Your task to perform on an android device: Show me popular videos on Youtube Image 0: 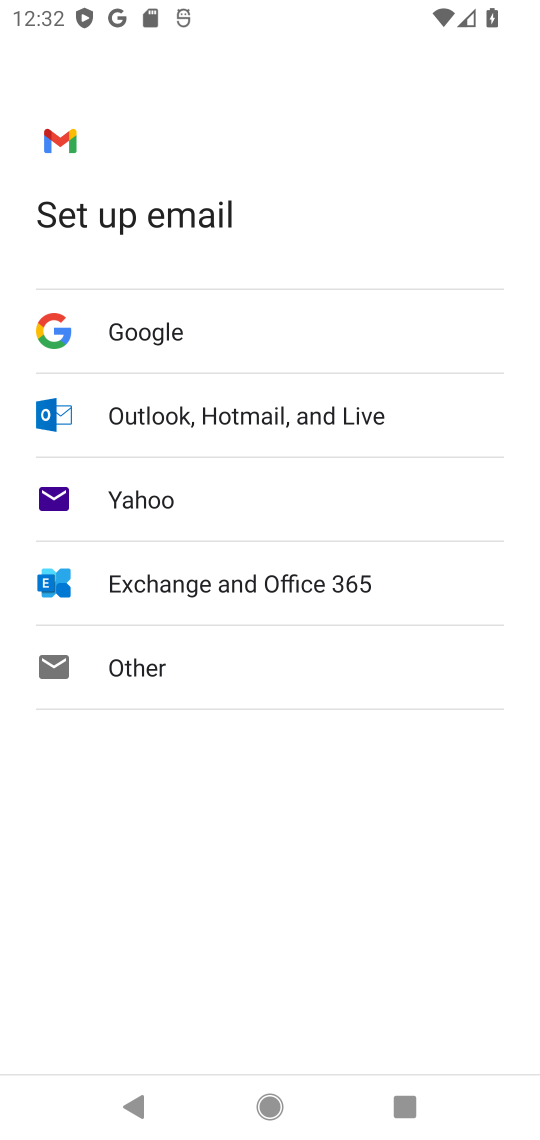
Step 0: press home button
Your task to perform on an android device: Show me popular videos on Youtube Image 1: 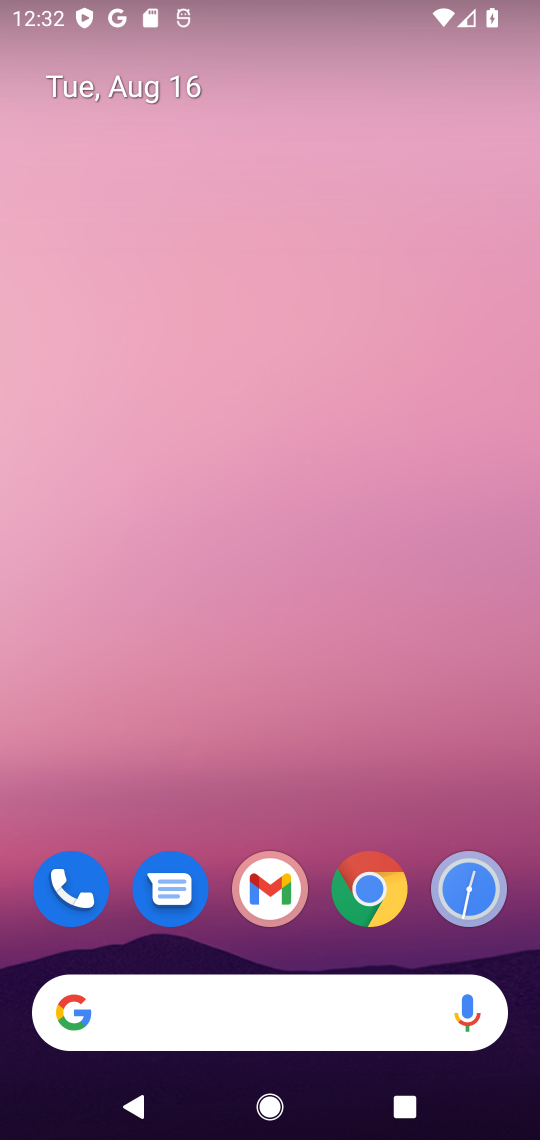
Step 1: drag from (383, 630) to (470, 2)
Your task to perform on an android device: Show me popular videos on Youtube Image 2: 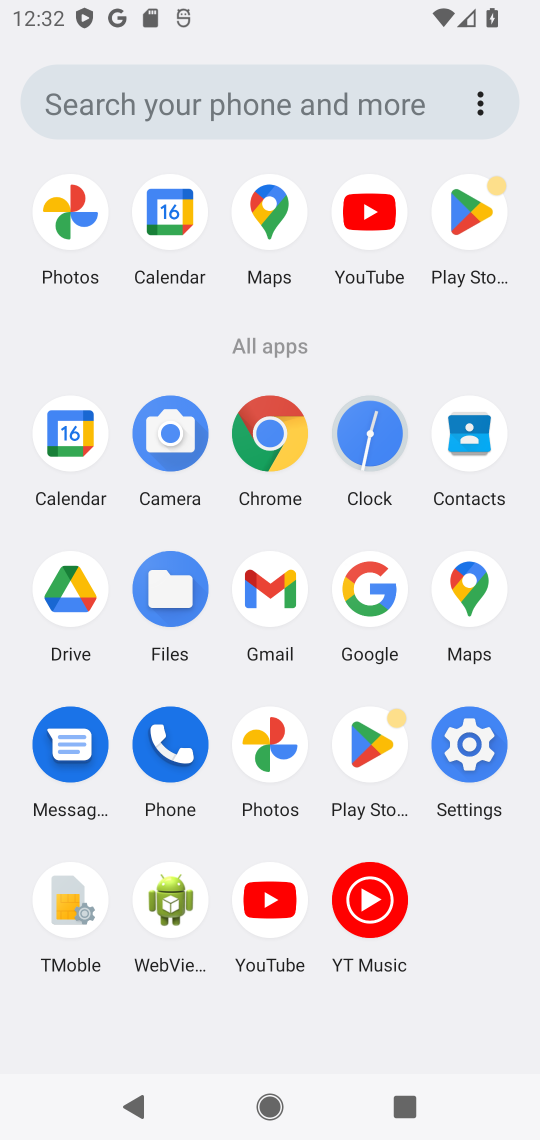
Step 2: click (361, 218)
Your task to perform on an android device: Show me popular videos on Youtube Image 3: 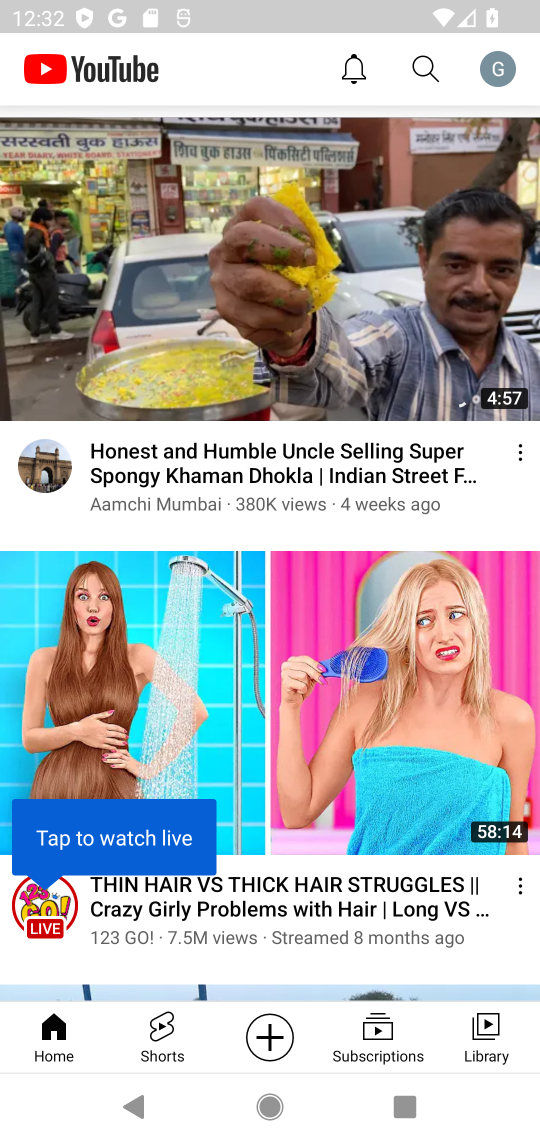
Step 3: click (424, 66)
Your task to perform on an android device: Show me popular videos on Youtube Image 4: 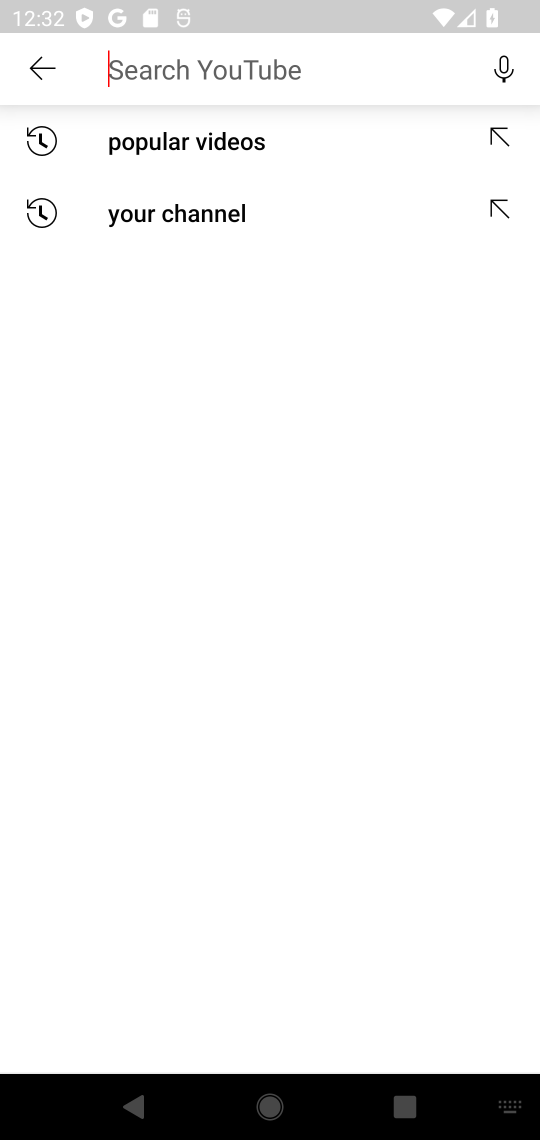
Step 4: click (187, 144)
Your task to perform on an android device: Show me popular videos on Youtube Image 5: 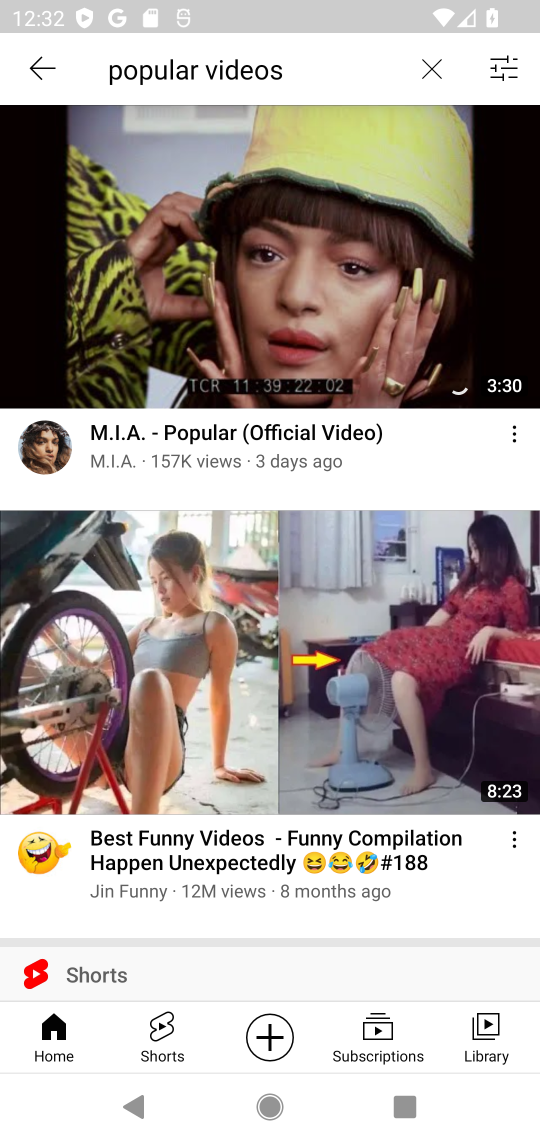
Step 5: task complete